Your task to perform on an android device: Go to eBay Image 0: 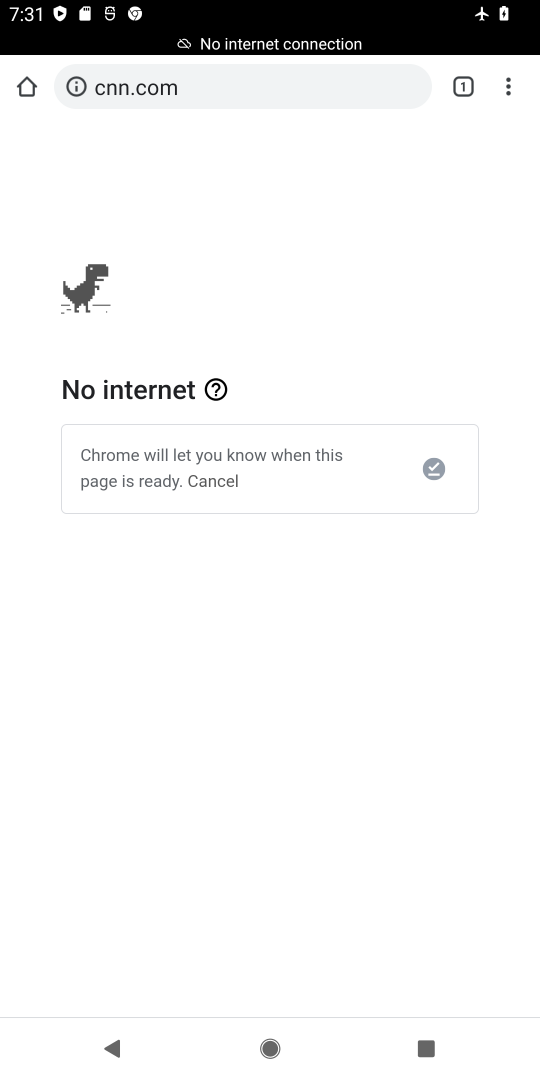
Step 0: press home button
Your task to perform on an android device: Go to eBay Image 1: 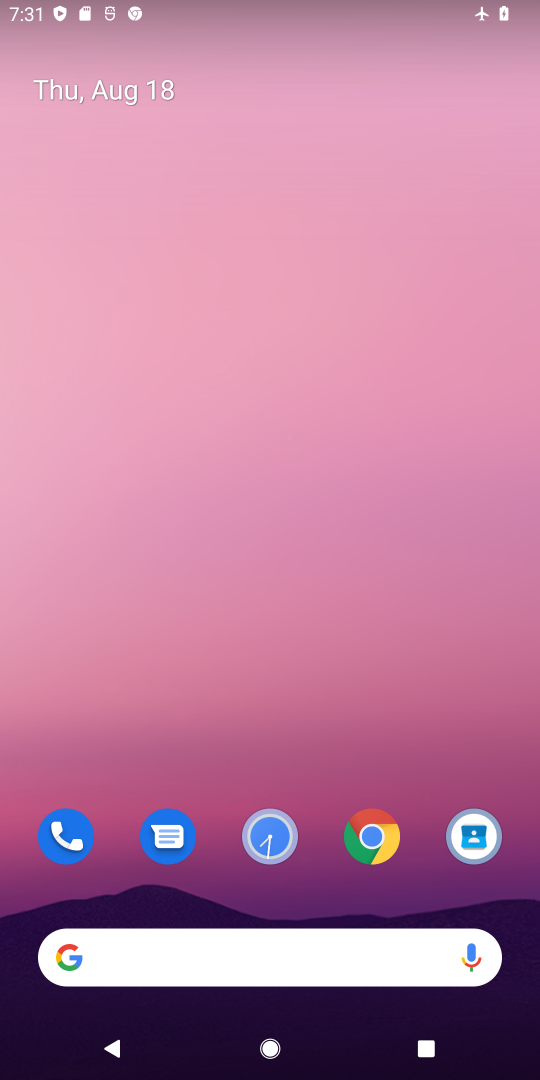
Step 1: drag from (261, 598) to (282, 0)
Your task to perform on an android device: Go to eBay Image 2: 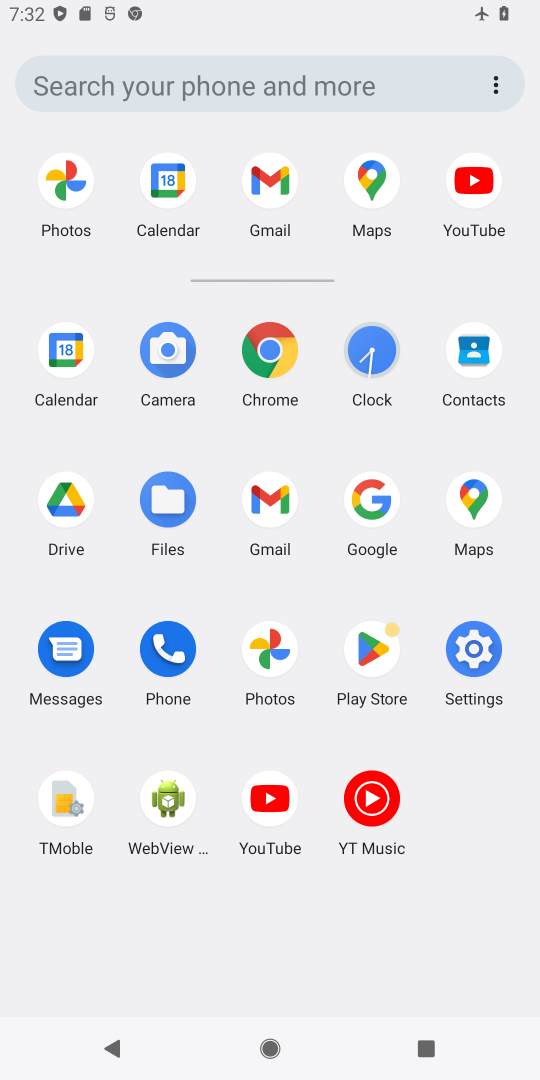
Step 2: click (266, 358)
Your task to perform on an android device: Go to eBay Image 3: 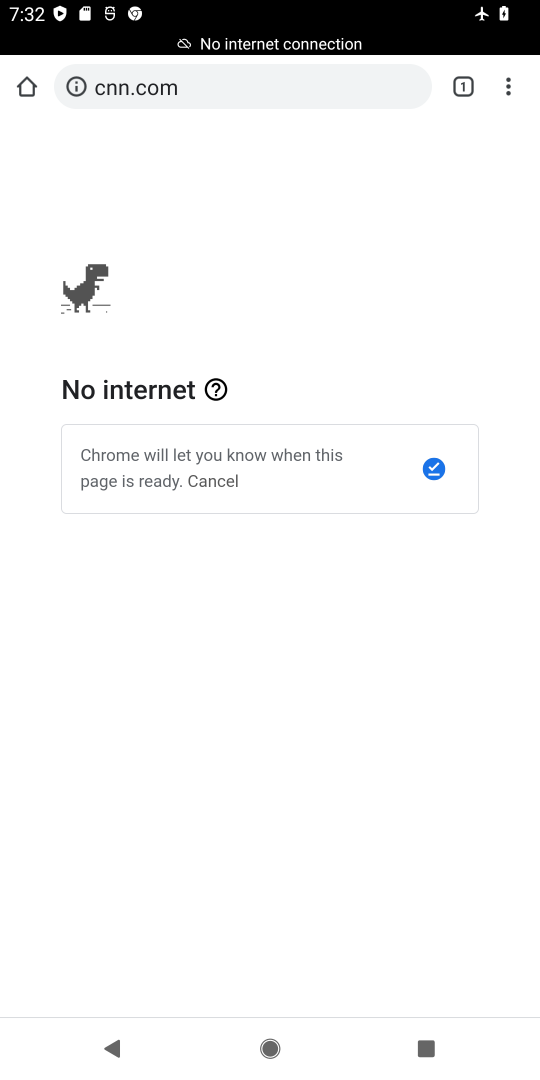
Step 3: click (249, 87)
Your task to perform on an android device: Go to eBay Image 4: 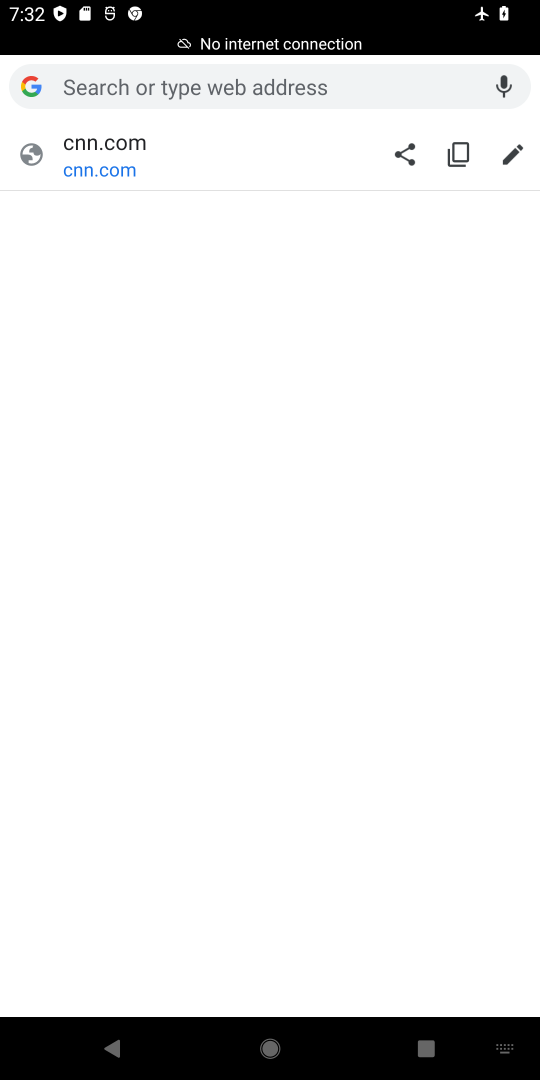
Step 4: type "ebay"
Your task to perform on an android device: Go to eBay Image 5: 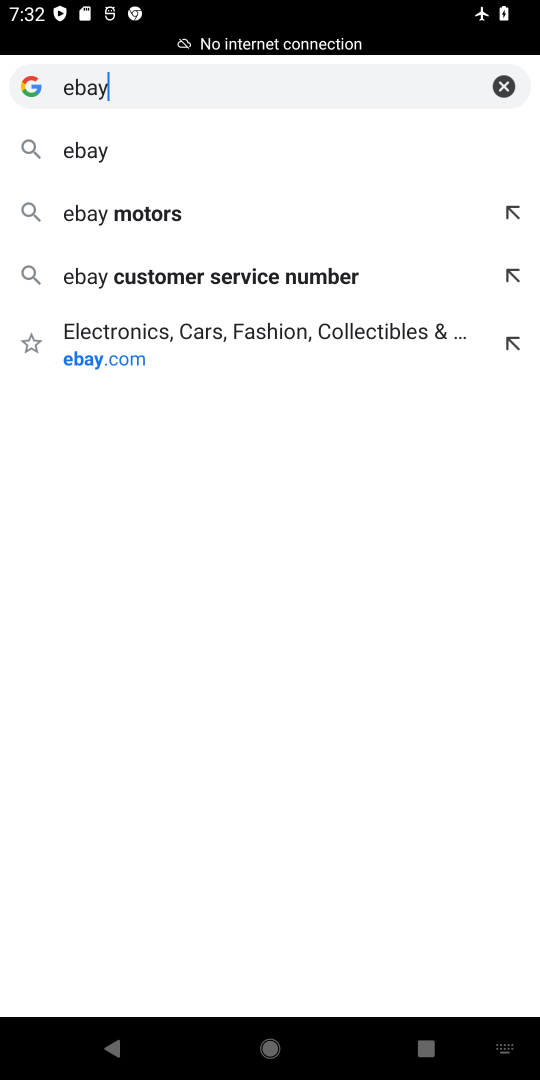
Step 5: click (102, 153)
Your task to perform on an android device: Go to eBay Image 6: 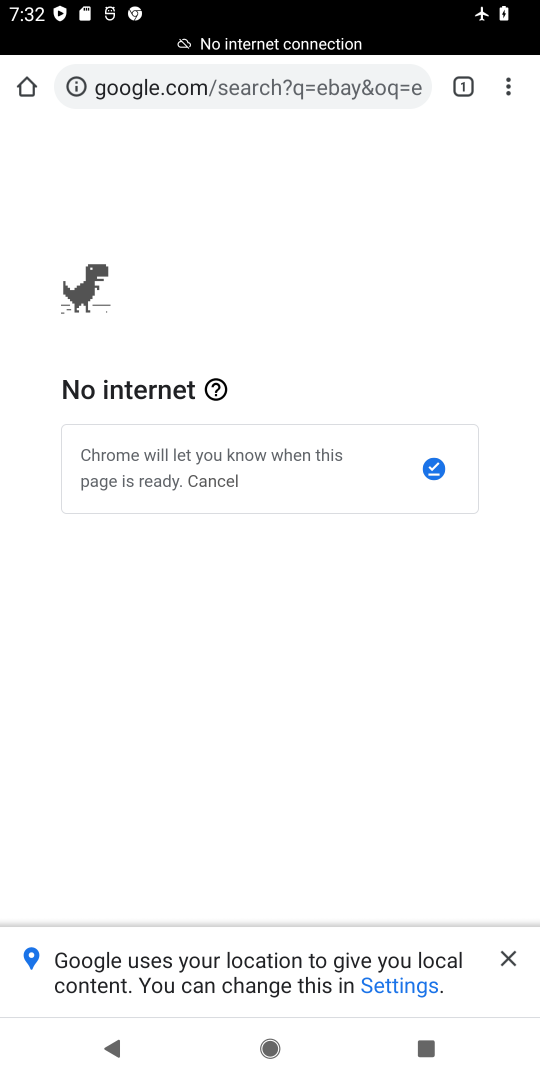
Step 6: task complete